Your task to perform on an android device: delete a single message in the gmail app Image 0: 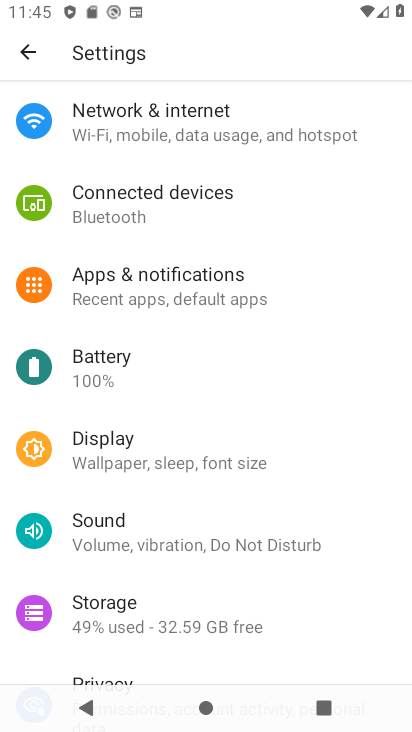
Step 0: press home button
Your task to perform on an android device: delete a single message in the gmail app Image 1: 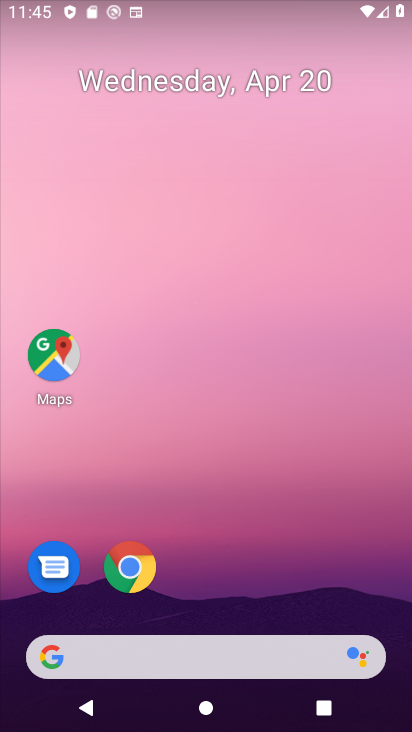
Step 1: drag from (175, 633) to (152, 278)
Your task to perform on an android device: delete a single message in the gmail app Image 2: 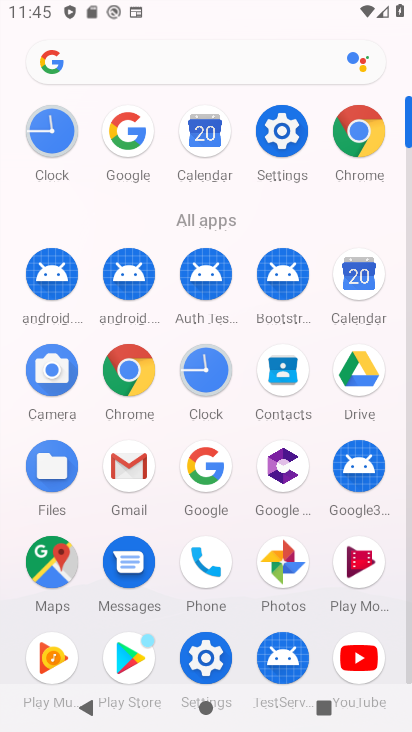
Step 2: click (134, 464)
Your task to perform on an android device: delete a single message in the gmail app Image 3: 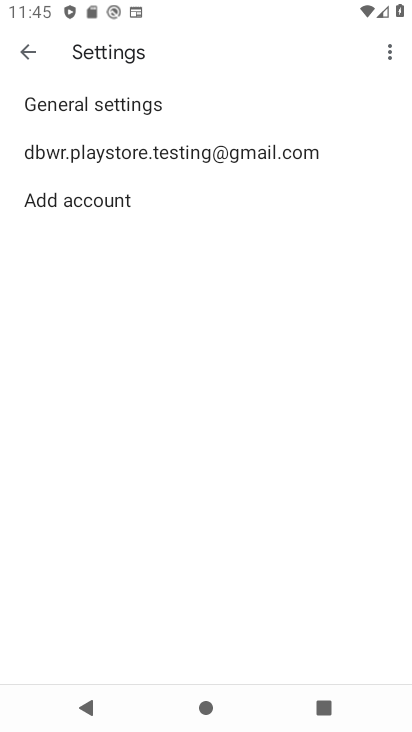
Step 3: click (117, 158)
Your task to perform on an android device: delete a single message in the gmail app Image 4: 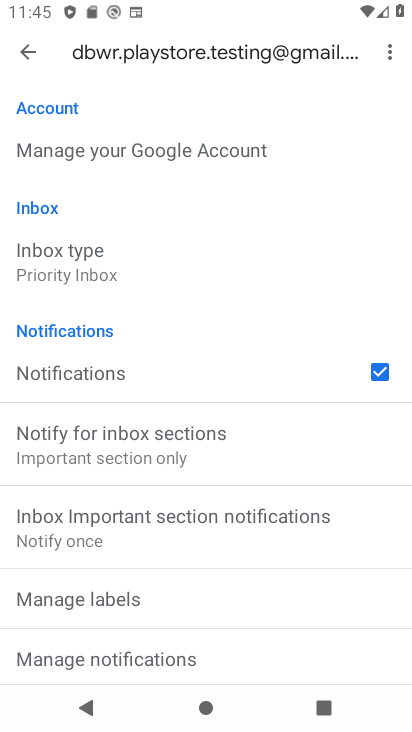
Step 4: click (21, 664)
Your task to perform on an android device: delete a single message in the gmail app Image 5: 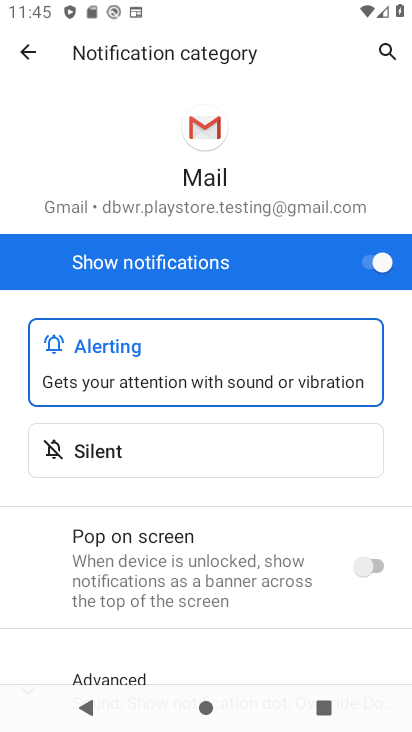
Step 5: click (29, 50)
Your task to perform on an android device: delete a single message in the gmail app Image 6: 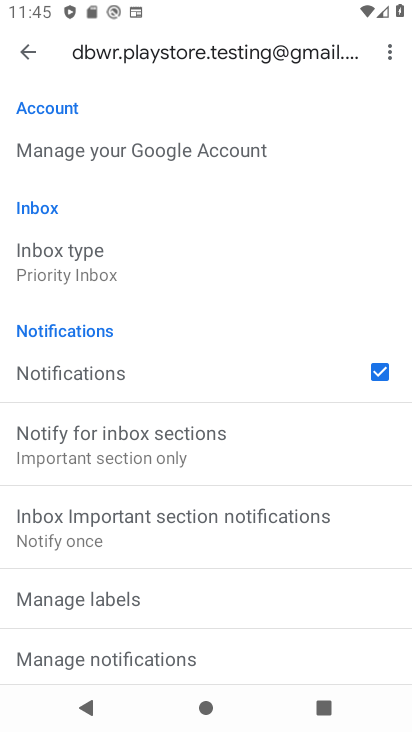
Step 6: click (27, 49)
Your task to perform on an android device: delete a single message in the gmail app Image 7: 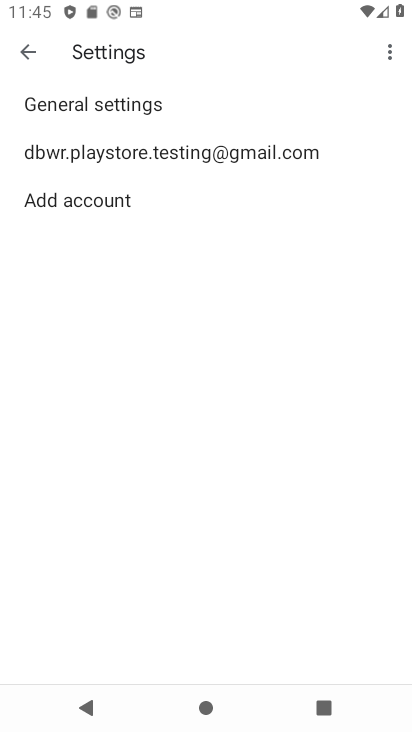
Step 7: click (27, 49)
Your task to perform on an android device: delete a single message in the gmail app Image 8: 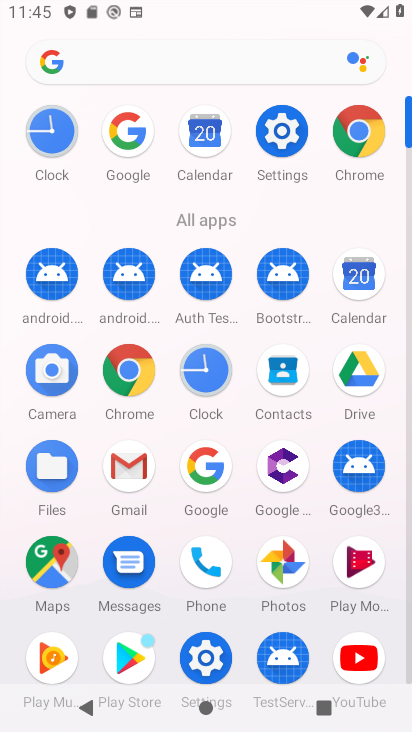
Step 8: click (126, 470)
Your task to perform on an android device: delete a single message in the gmail app Image 9: 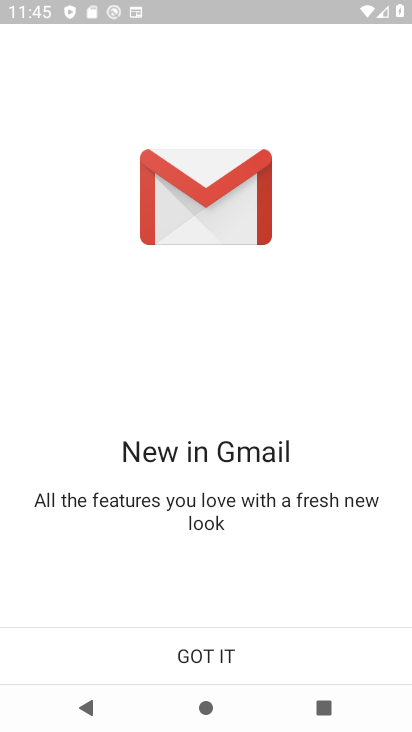
Step 9: click (184, 647)
Your task to perform on an android device: delete a single message in the gmail app Image 10: 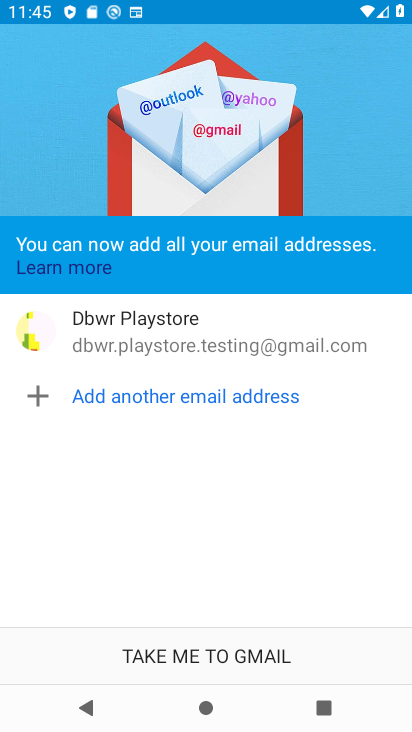
Step 10: click (197, 652)
Your task to perform on an android device: delete a single message in the gmail app Image 11: 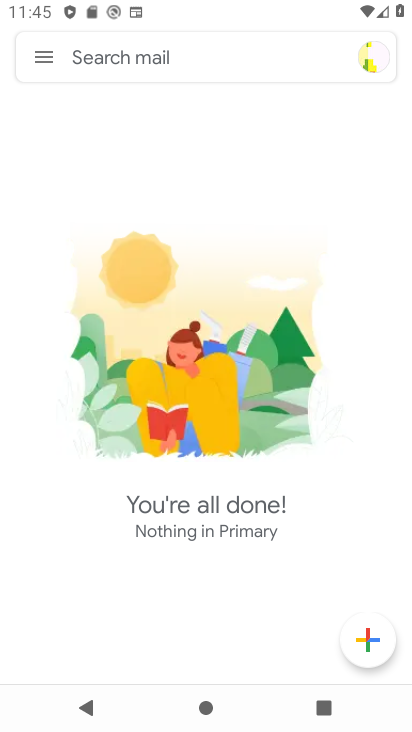
Step 11: task complete